Your task to perform on an android device: allow notifications from all sites in the chrome app Image 0: 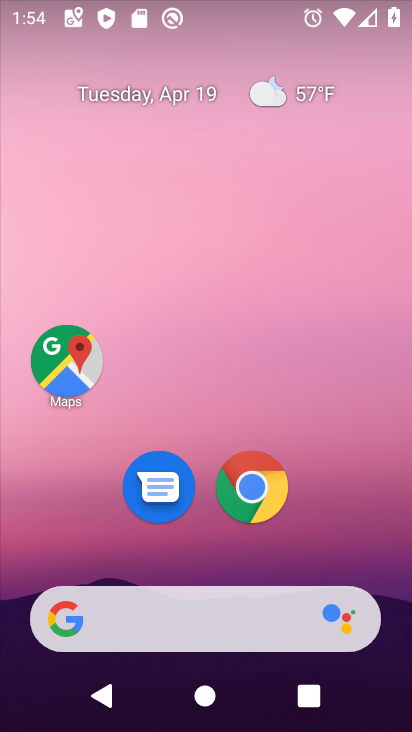
Step 0: drag from (307, 176) to (245, 159)
Your task to perform on an android device: allow notifications from all sites in the chrome app Image 1: 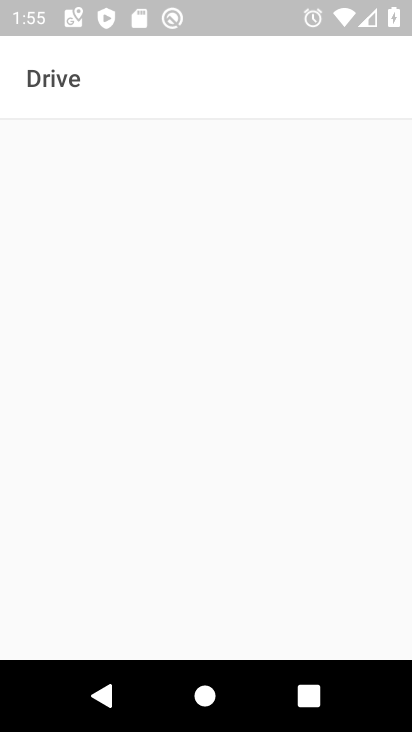
Step 1: drag from (91, 414) to (156, 214)
Your task to perform on an android device: allow notifications from all sites in the chrome app Image 2: 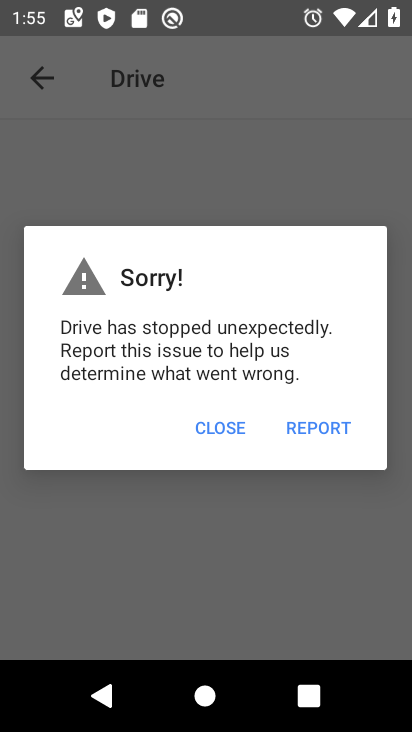
Step 2: press home button
Your task to perform on an android device: allow notifications from all sites in the chrome app Image 3: 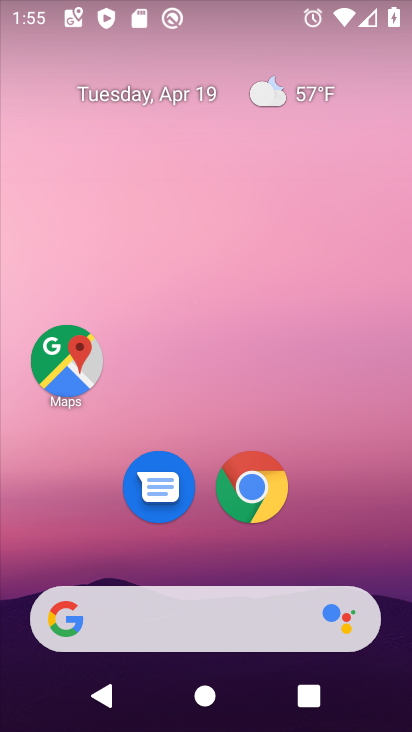
Step 3: click (257, 492)
Your task to perform on an android device: allow notifications from all sites in the chrome app Image 4: 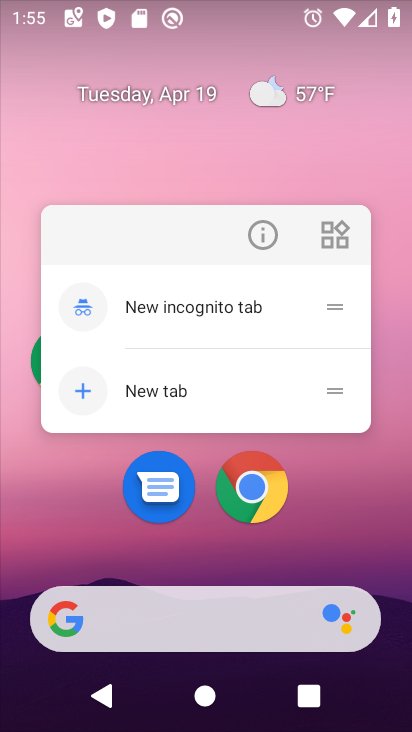
Step 4: click (258, 491)
Your task to perform on an android device: allow notifications from all sites in the chrome app Image 5: 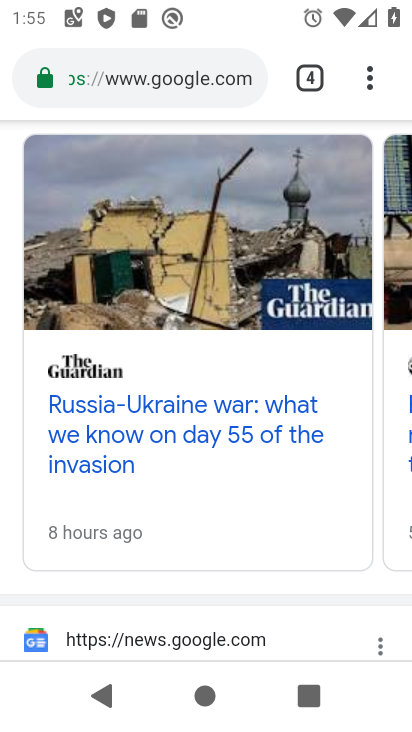
Step 5: click (365, 85)
Your task to perform on an android device: allow notifications from all sites in the chrome app Image 6: 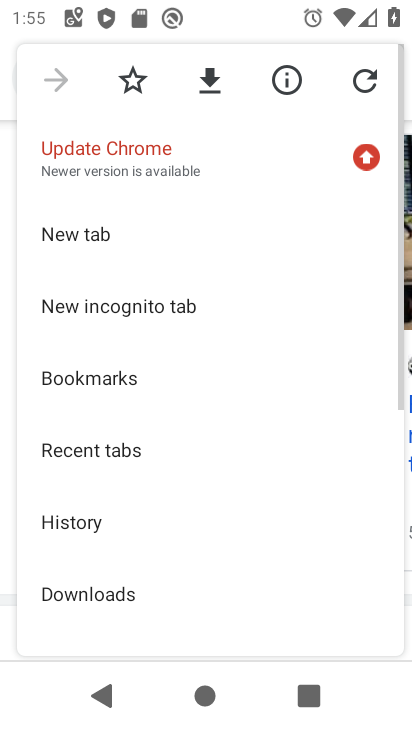
Step 6: drag from (252, 550) to (261, 220)
Your task to perform on an android device: allow notifications from all sites in the chrome app Image 7: 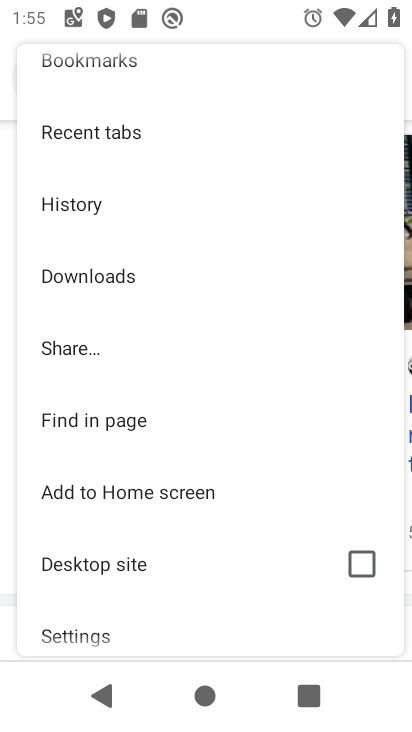
Step 7: drag from (274, 386) to (281, 123)
Your task to perform on an android device: allow notifications from all sites in the chrome app Image 8: 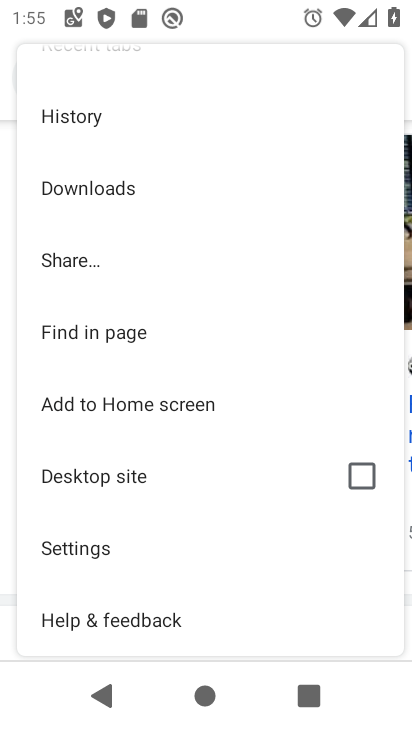
Step 8: click (96, 548)
Your task to perform on an android device: allow notifications from all sites in the chrome app Image 9: 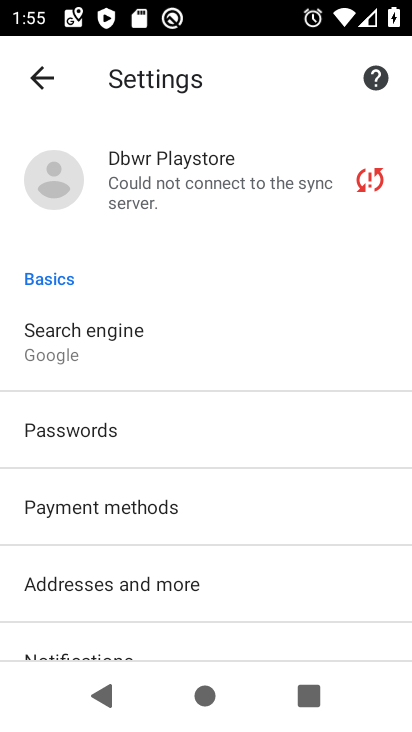
Step 9: drag from (294, 599) to (310, 334)
Your task to perform on an android device: allow notifications from all sites in the chrome app Image 10: 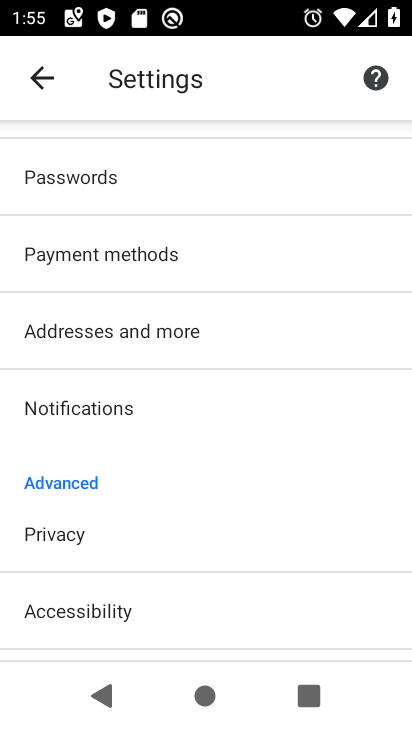
Step 10: drag from (231, 616) to (245, 392)
Your task to perform on an android device: allow notifications from all sites in the chrome app Image 11: 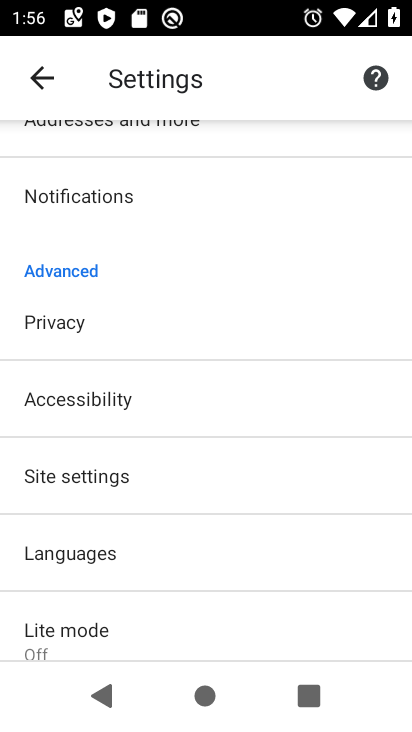
Step 11: drag from (259, 587) to (295, 321)
Your task to perform on an android device: allow notifications from all sites in the chrome app Image 12: 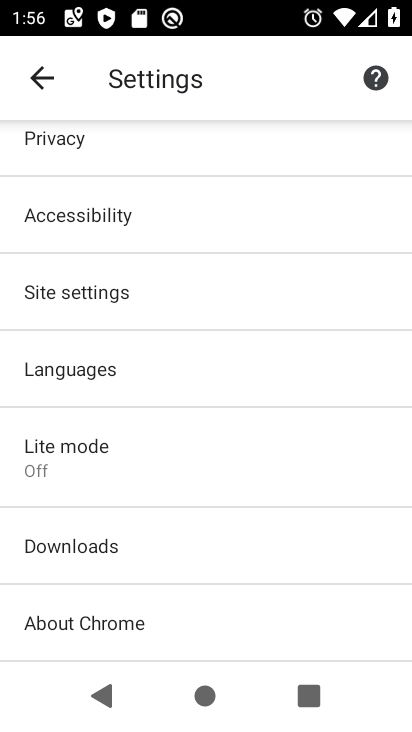
Step 12: click (104, 294)
Your task to perform on an android device: allow notifications from all sites in the chrome app Image 13: 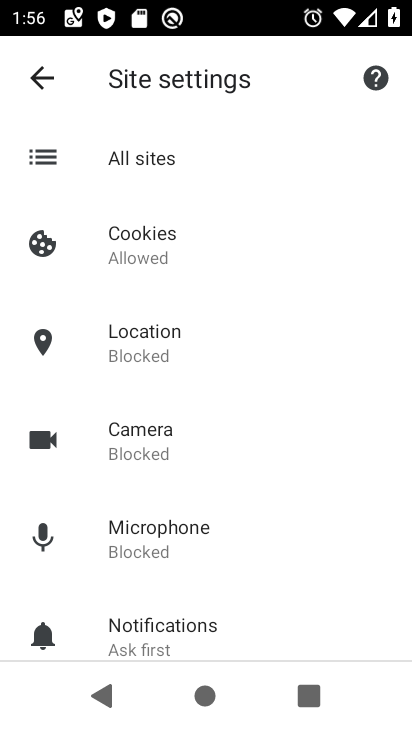
Step 13: click (176, 153)
Your task to perform on an android device: allow notifications from all sites in the chrome app Image 14: 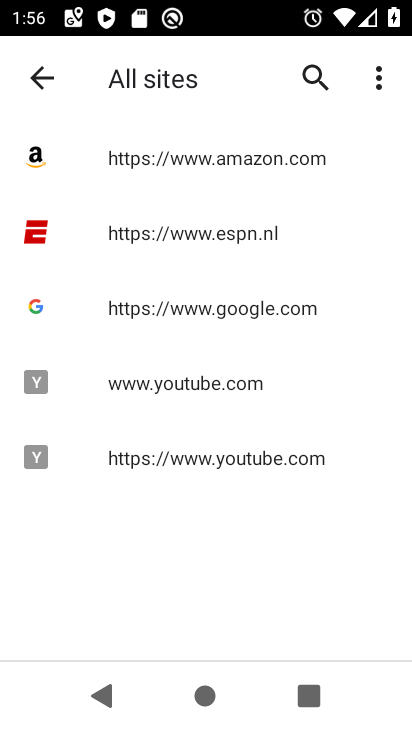
Step 14: click (174, 168)
Your task to perform on an android device: allow notifications from all sites in the chrome app Image 15: 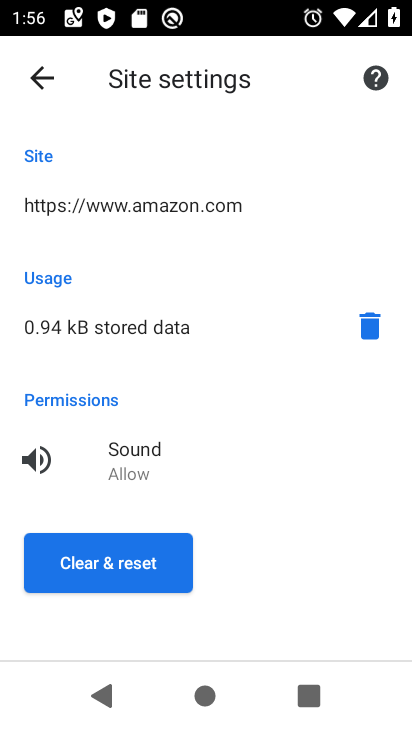
Step 15: task complete